Your task to perform on an android device: turn on sleep mode Image 0: 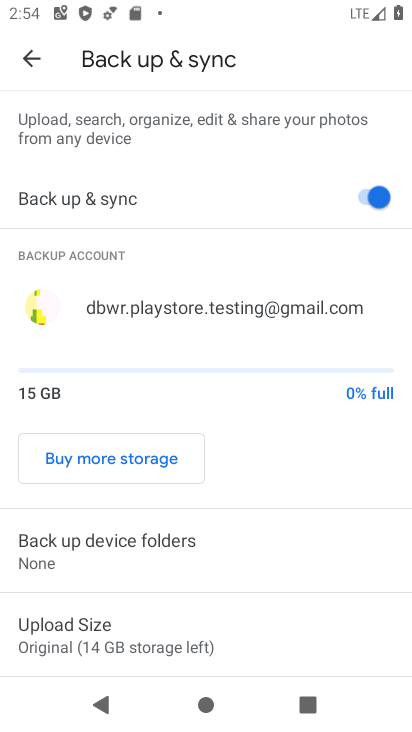
Step 0: press home button
Your task to perform on an android device: turn on sleep mode Image 1: 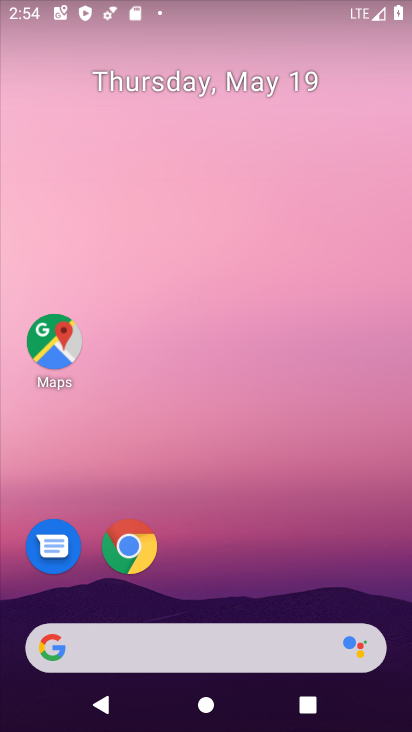
Step 1: drag from (159, 646) to (290, 107)
Your task to perform on an android device: turn on sleep mode Image 2: 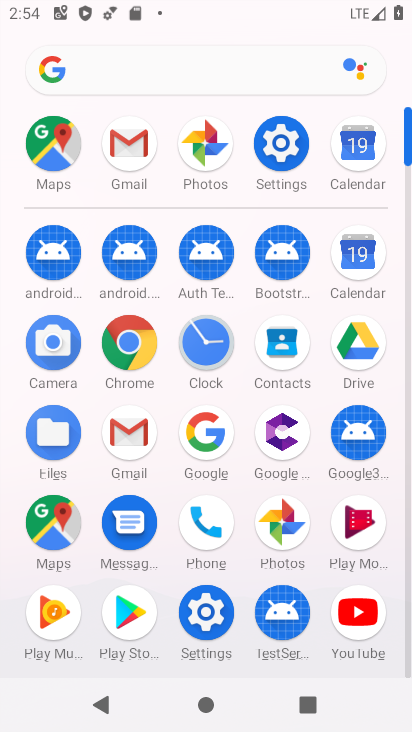
Step 2: click (276, 151)
Your task to perform on an android device: turn on sleep mode Image 3: 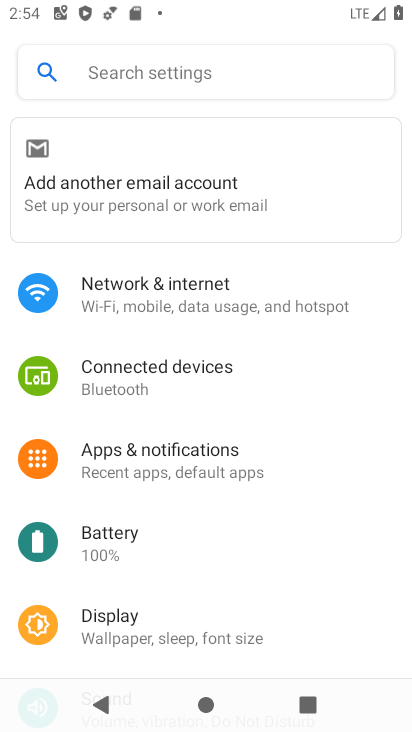
Step 3: click (165, 631)
Your task to perform on an android device: turn on sleep mode Image 4: 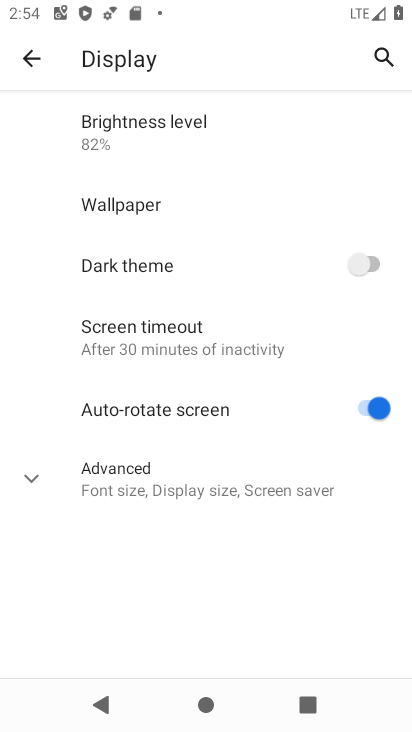
Step 4: task complete